Your task to perform on an android device: Go to sound settings Image 0: 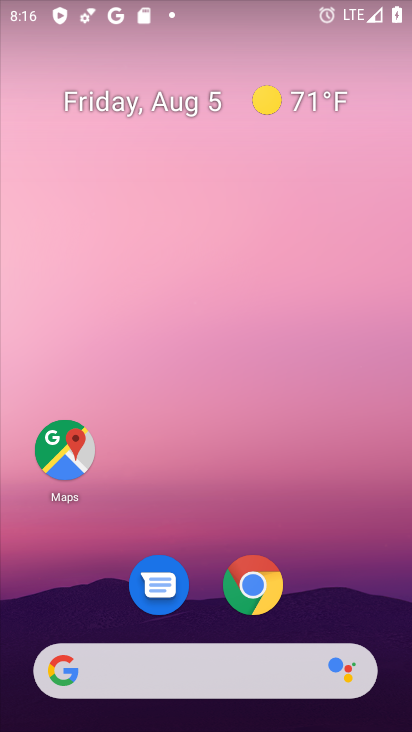
Step 0: drag from (324, 611) to (368, 36)
Your task to perform on an android device: Go to sound settings Image 1: 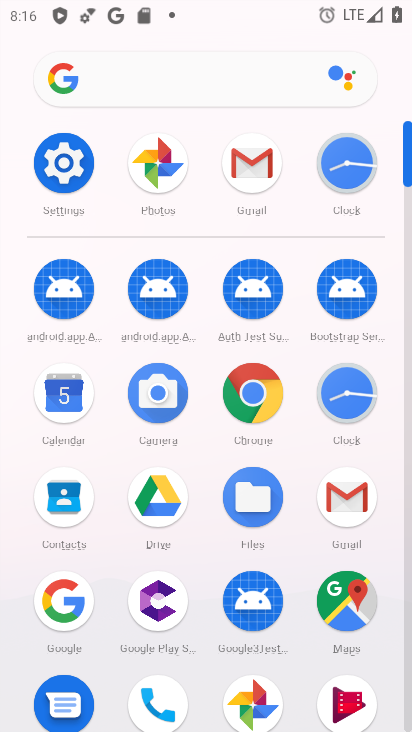
Step 1: click (65, 167)
Your task to perform on an android device: Go to sound settings Image 2: 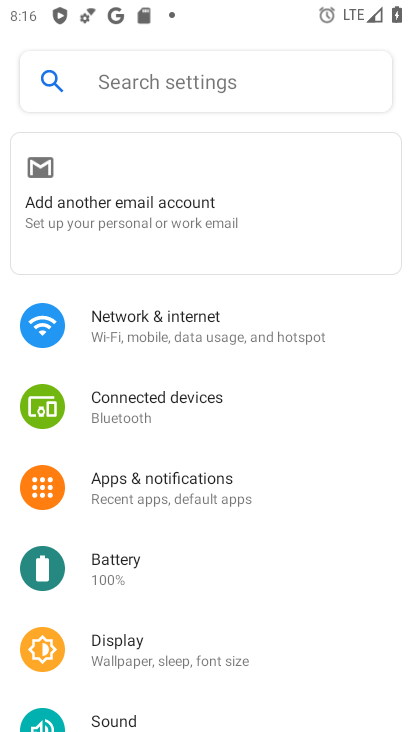
Step 2: drag from (200, 552) to (296, 127)
Your task to perform on an android device: Go to sound settings Image 3: 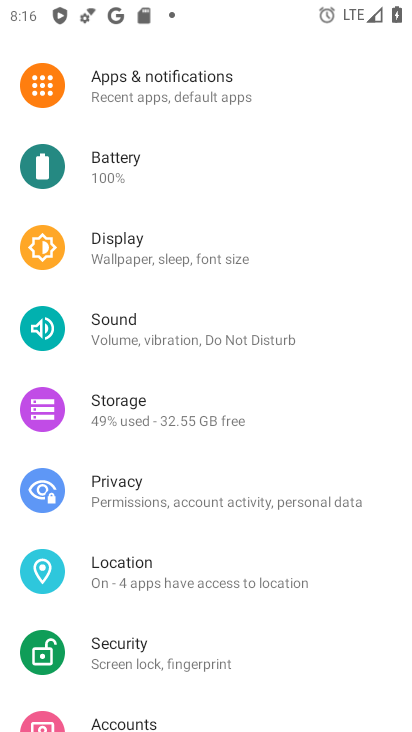
Step 3: click (221, 332)
Your task to perform on an android device: Go to sound settings Image 4: 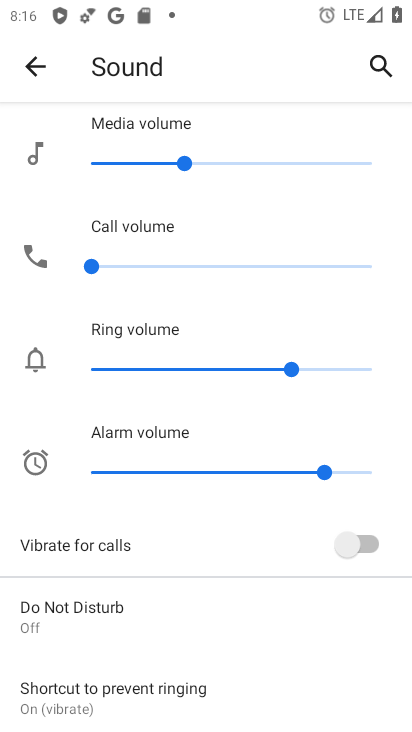
Step 4: task complete